Your task to perform on an android device: open wifi settings Image 0: 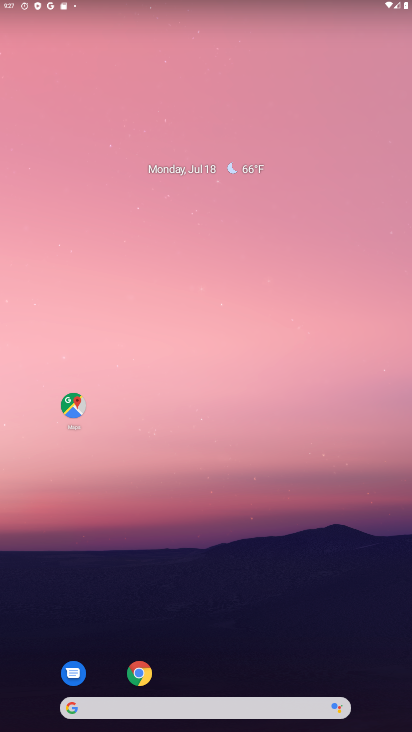
Step 0: drag from (189, 683) to (251, 70)
Your task to perform on an android device: open wifi settings Image 1: 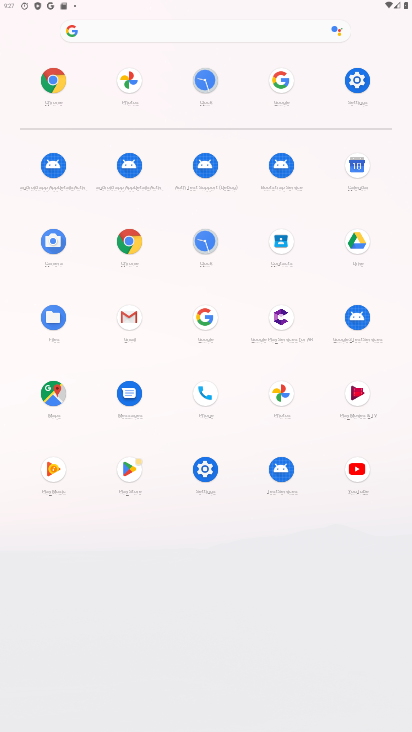
Step 1: click (353, 81)
Your task to perform on an android device: open wifi settings Image 2: 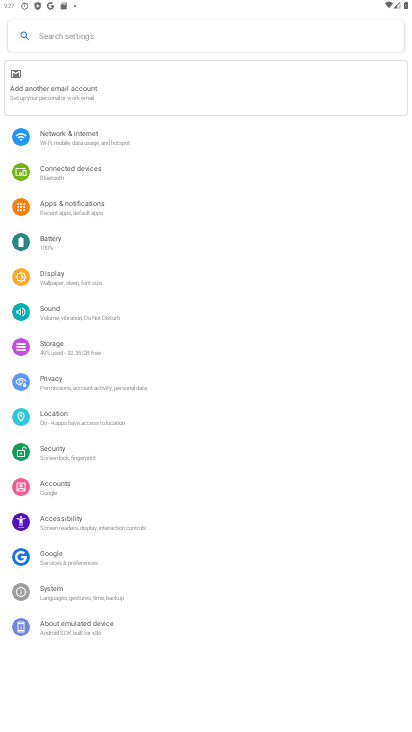
Step 2: click (97, 138)
Your task to perform on an android device: open wifi settings Image 3: 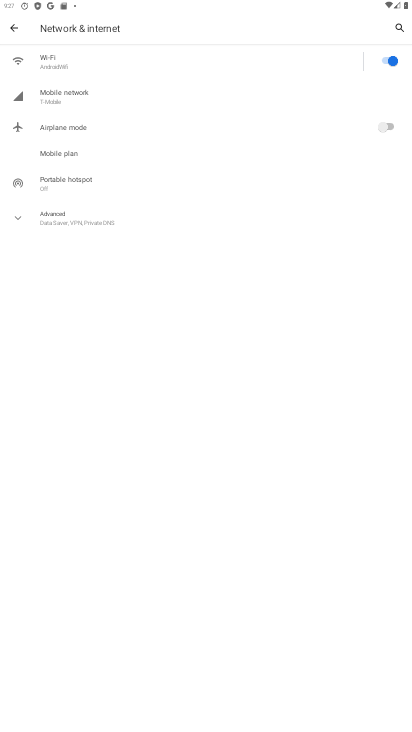
Step 3: click (131, 57)
Your task to perform on an android device: open wifi settings Image 4: 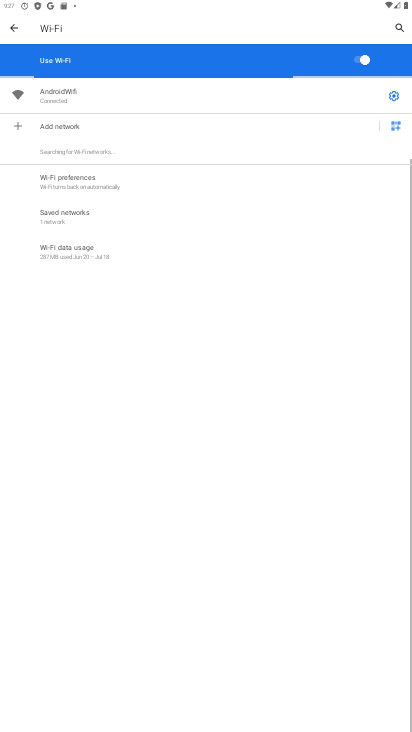
Step 4: click (65, 100)
Your task to perform on an android device: open wifi settings Image 5: 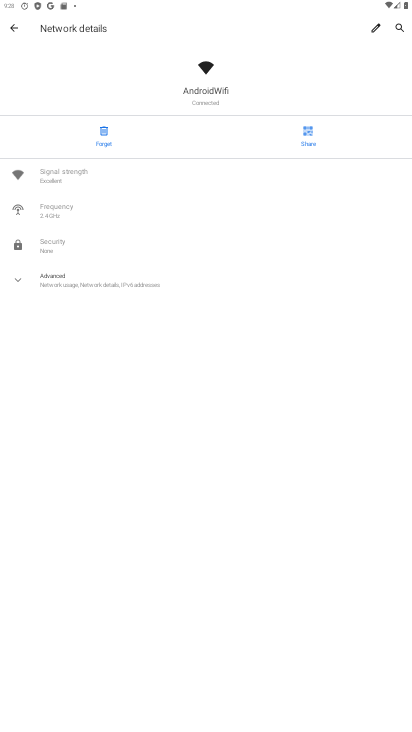
Step 5: task complete